Your task to perform on an android device: toggle improve location accuracy Image 0: 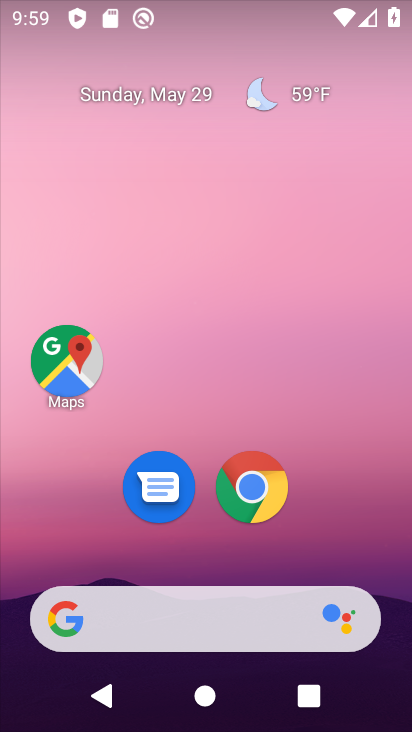
Step 0: drag from (381, 602) to (345, 29)
Your task to perform on an android device: toggle improve location accuracy Image 1: 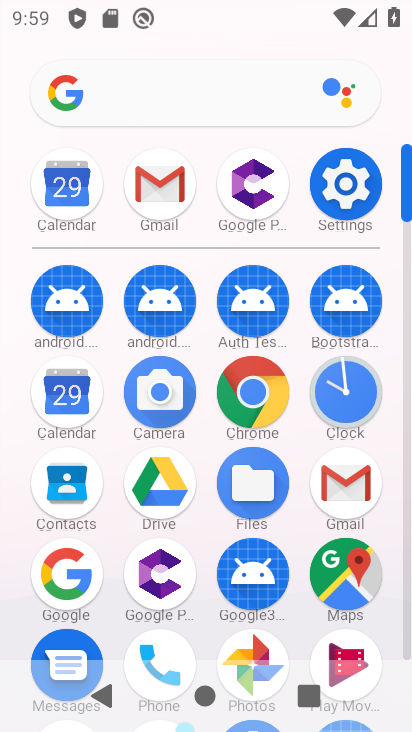
Step 1: click (363, 196)
Your task to perform on an android device: toggle improve location accuracy Image 2: 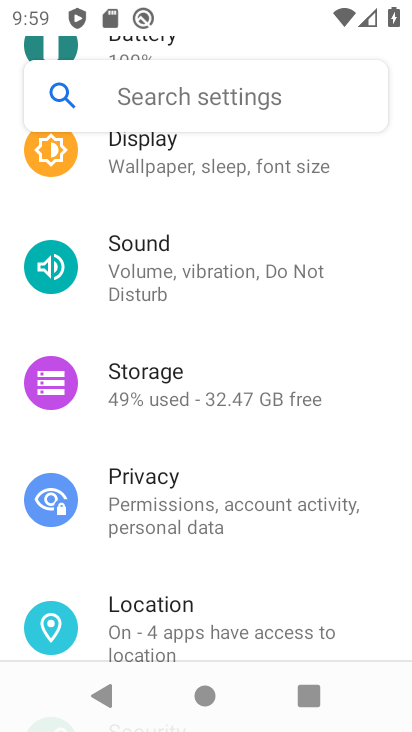
Step 2: click (238, 626)
Your task to perform on an android device: toggle improve location accuracy Image 3: 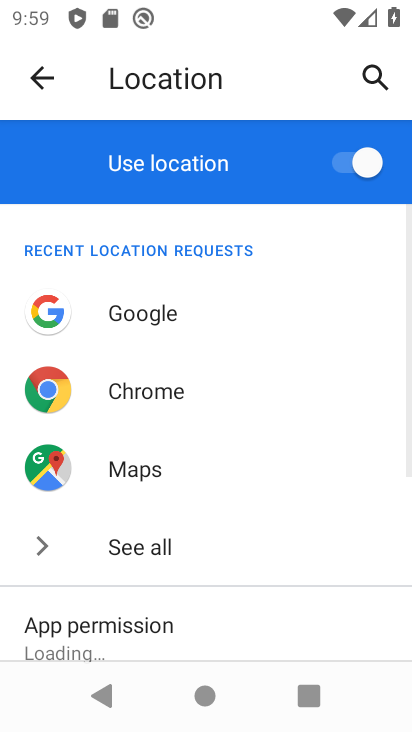
Step 3: drag from (305, 631) to (276, 310)
Your task to perform on an android device: toggle improve location accuracy Image 4: 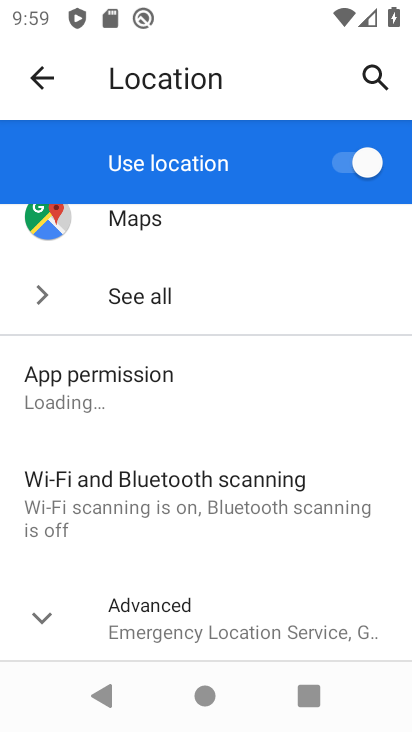
Step 4: click (39, 615)
Your task to perform on an android device: toggle improve location accuracy Image 5: 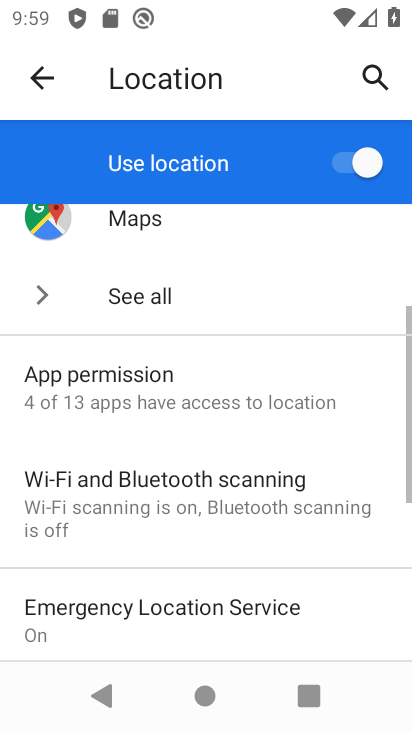
Step 5: drag from (323, 642) to (330, 279)
Your task to perform on an android device: toggle improve location accuracy Image 6: 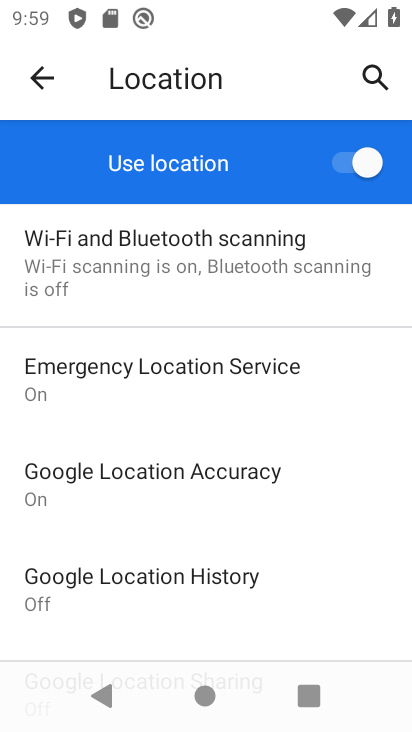
Step 6: click (85, 474)
Your task to perform on an android device: toggle improve location accuracy Image 7: 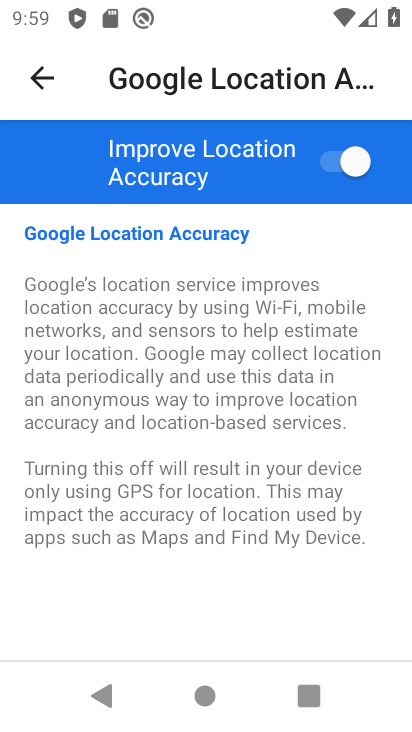
Step 7: click (342, 161)
Your task to perform on an android device: toggle improve location accuracy Image 8: 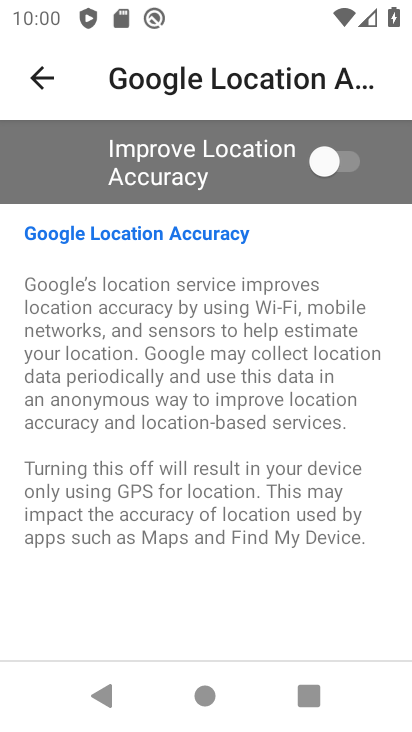
Step 8: task complete